Your task to perform on an android device: Open the Play Movies app and select the watchlist tab. Image 0: 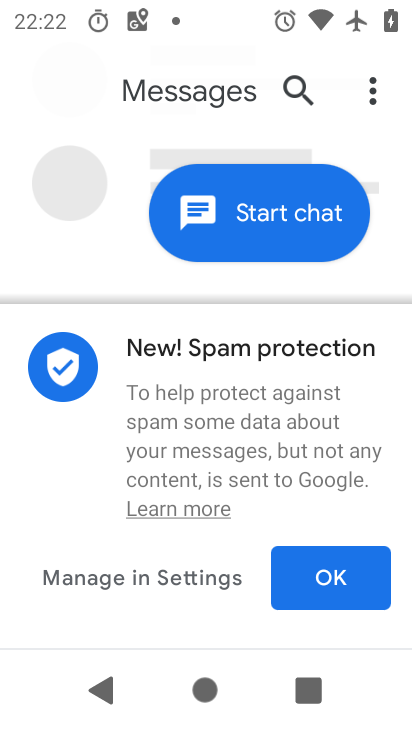
Step 0: press home button
Your task to perform on an android device: Open the Play Movies app and select the watchlist tab. Image 1: 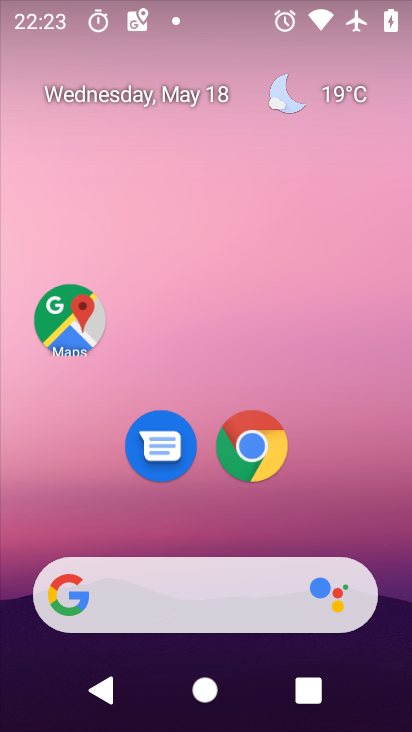
Step 1: drag from (141, 599) to (328, 55)
Your task to perform on an android device: Open the Play Movies app and select the watchlist tab. Image 2: 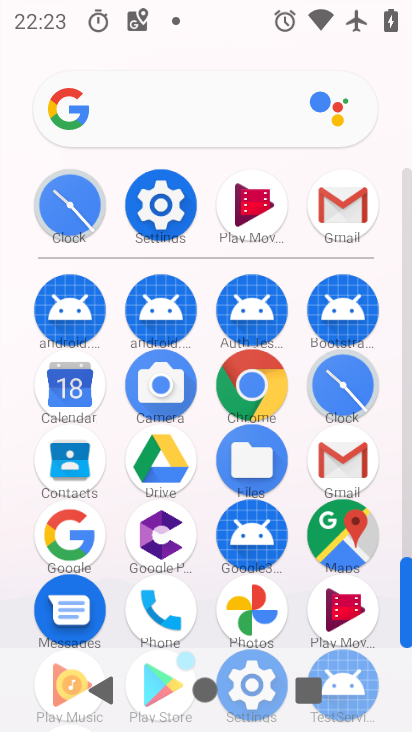
Step 2: click (259, 207)
Your task to perform on an android device: Open the Play Movies app and select the watchlist tab. Image 3: 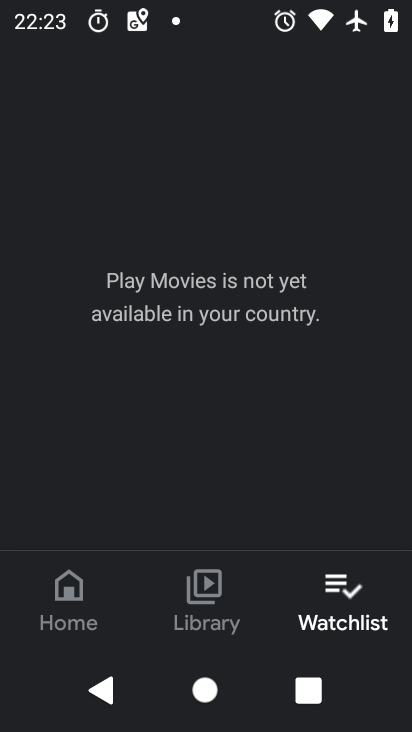
Step 3: task complete